Your task to perform on an android device: Show me productivity apps on the Play Store Image 0: 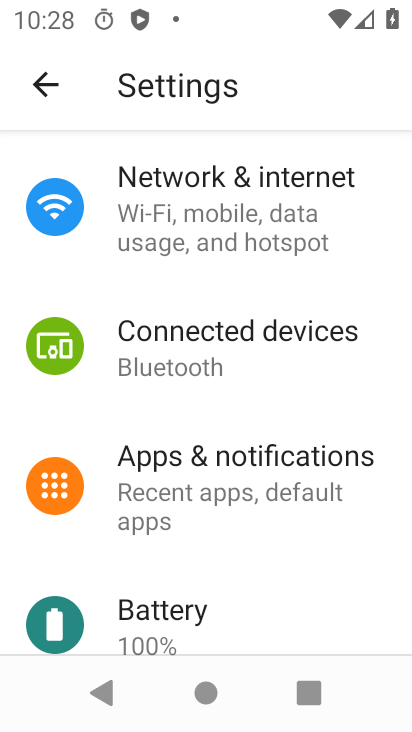
Step 0: press home button
Your task to perform on an android device: Show me productivity apps on the Play Store Image 1: 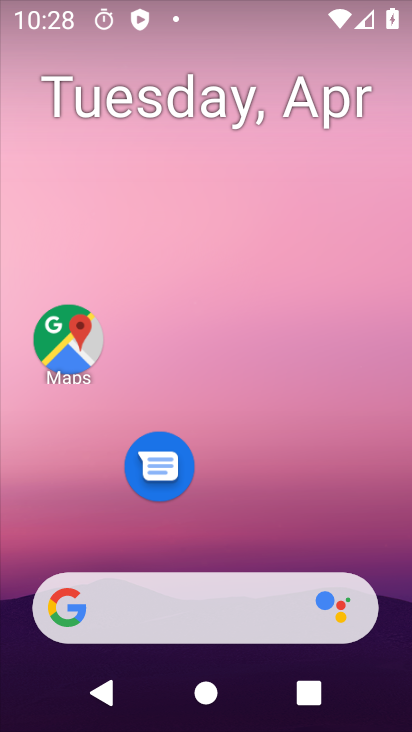
Step 1: drag from (264, 522) to (250, 133)
Your task to perform on an android device: Show me productivity apps on the Play Store Image 2: 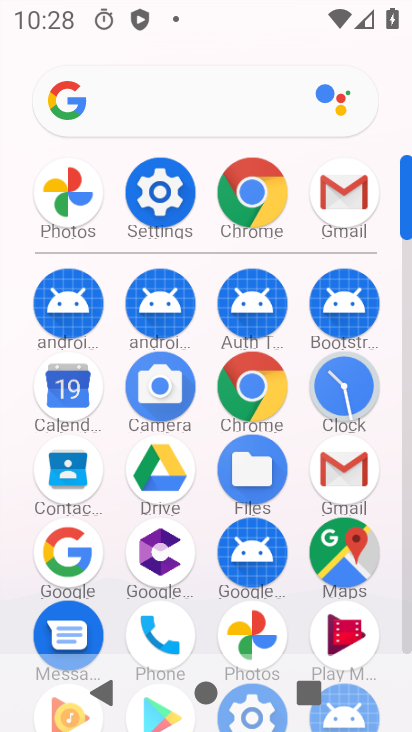
Step 2: click (409, 629)
Your task to perform on an android device: Show me productivity apps on the Play Store Image 3: 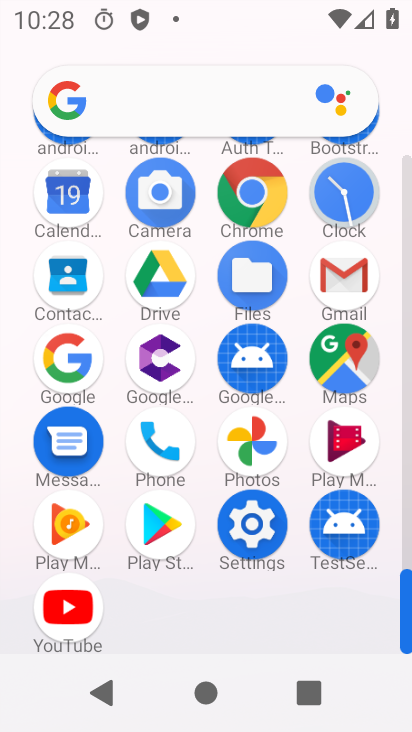
Step 3: click (175, 547)
Your task to perform on an android device: Show me productivity apps on the Play Store Image 4: 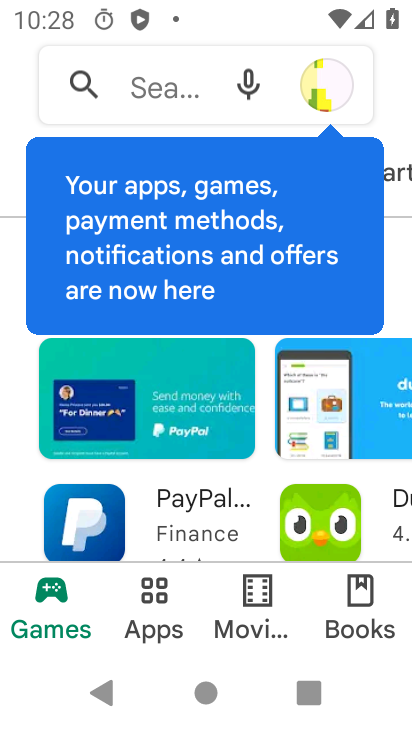
Step 4: click (139, 622)
Your task to perform on an android device: Show me productivity apps on the Play Store Image 5: 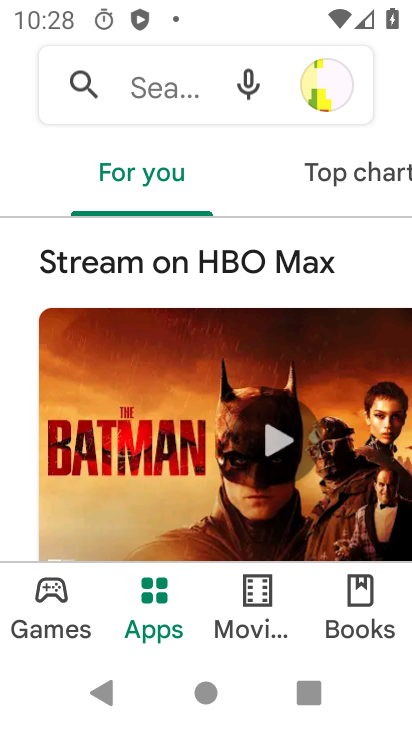
Step 5: click (335, 185)
Your task to perform on an android device: Show me productivity apps on the Play Store Image 6: 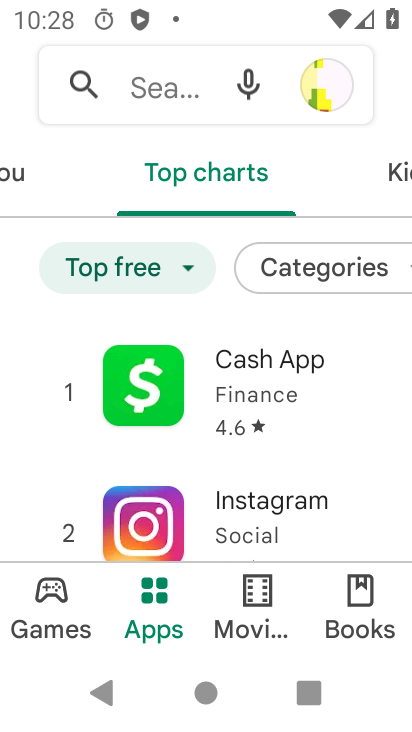
Step 6: click (307, 274)
Your task to perform on an android device: Show me productivity apps on the Play Store Image 7: 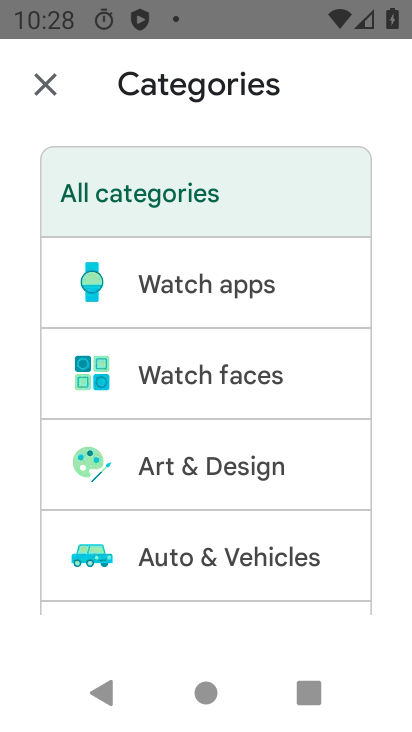
Step 7: drag from (234, 496) to (247, 255)
Your task to perform on an android device: Show me productivity apps on the Play Store Image 8: 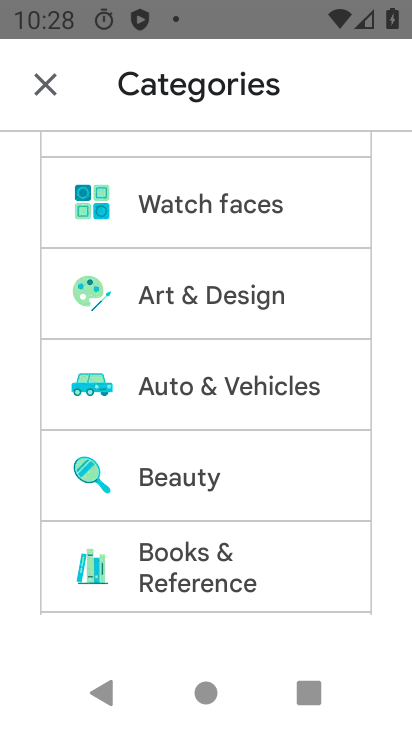
Step 8: drag from (230, 506) to (252, 300)
Your task to perform on an android device: Show me productivity apps on the Play Store Image 9: 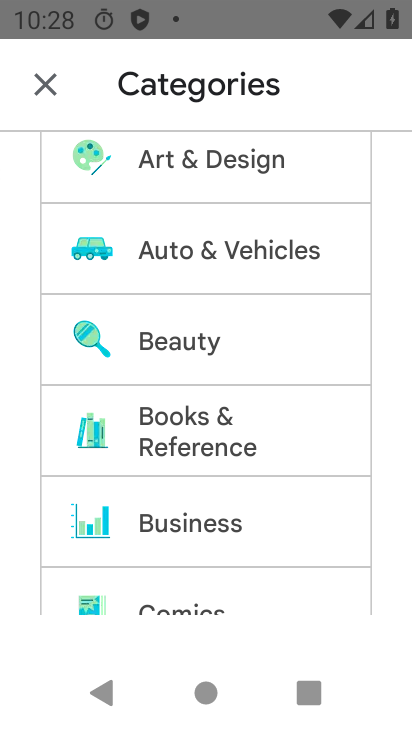
Step 9: drag from (233, 578) to (234, 251)
Your task to perform on an android device: Show me productivity apps on the Play Store Image 10: 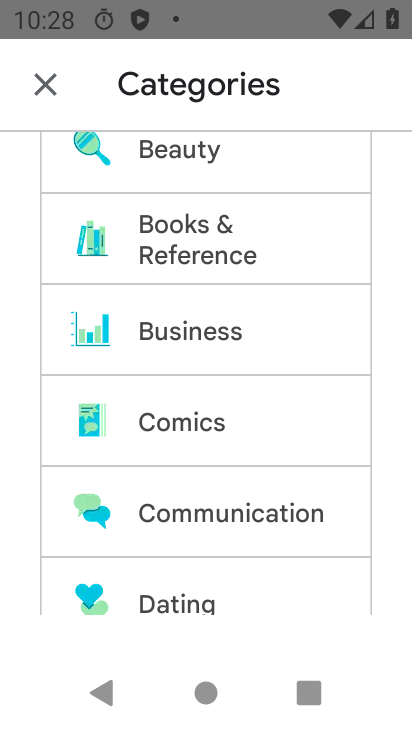
Step 10: drag from (229, 555) to (247, 144)
Your task to perform on an android device: Show me productivity apps on the Play Store Image 11: 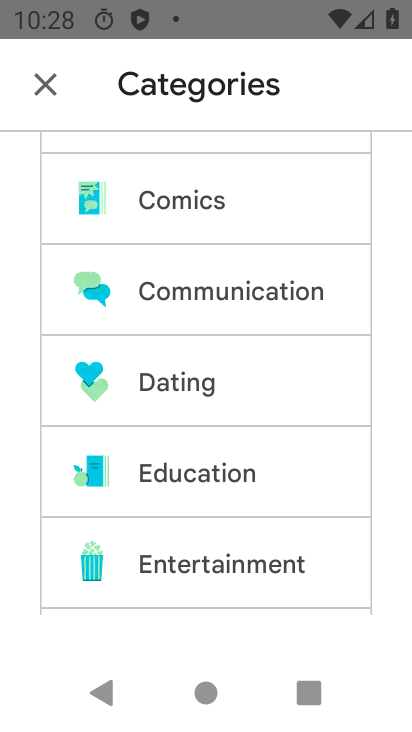
Step 11: drag from (233, 523) to (246, 304)
Your task to perform on an android device: Show me productivity apps on the Play Store Image 12: 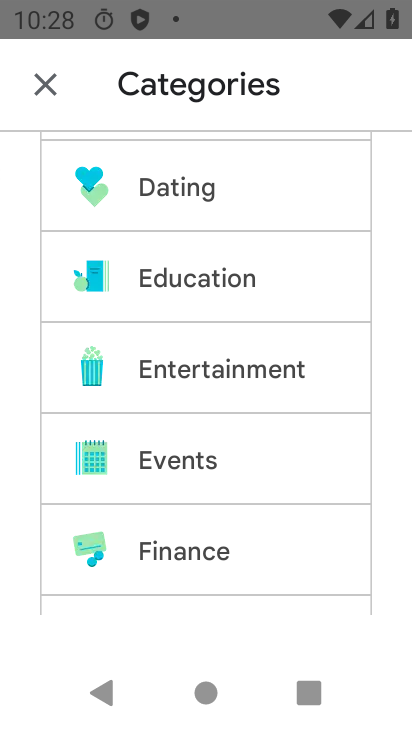
Step 12: drag from (230, 548) to (246, 249)
Your task to perform on an android device: Show me productivity apps on the Play Store Image 13: 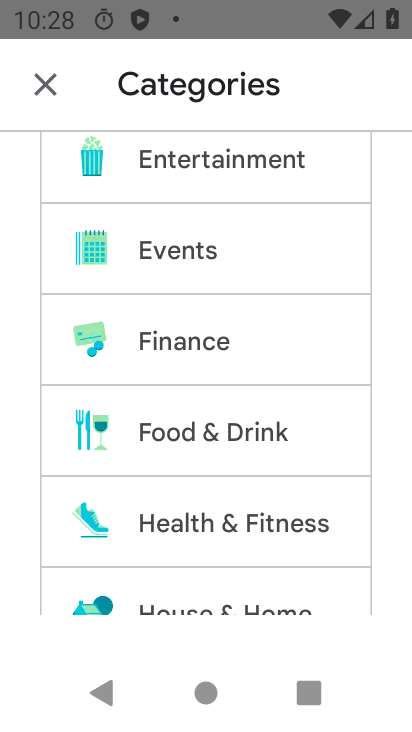
Step 13: drag from (234, 572) to (241, 270)
Your task to perform on an android device: Show me productivity apps on the Play Store Image 14: 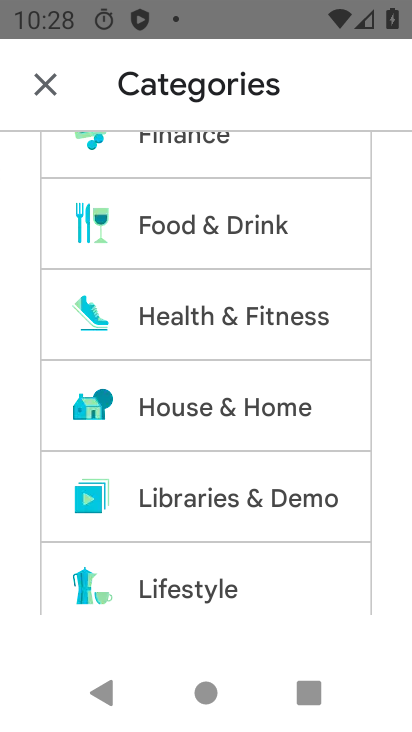
Step 14: drag from (241, 555) to (243, 209)
Your task to perform on an android device: Show me productivity apps on the Play Store Image 15: 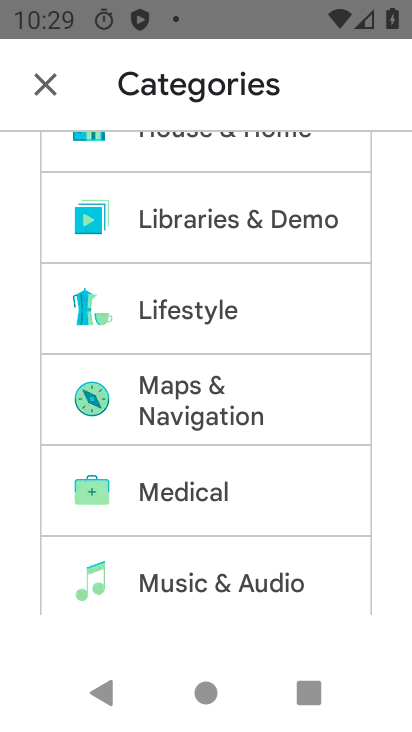
Step 15: drag from (219, 555) to (227, 192)
Your task to perform on an android device: Show me productivity apps on the Play Store Image 16: 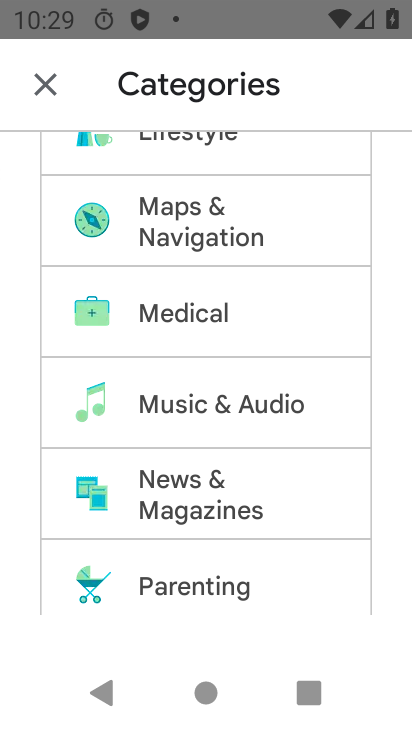
Step 16: drag from (235, 561) to (246, 282)
Your task to perform on an android device: Show me productivity apps on the Play Store Image 17: 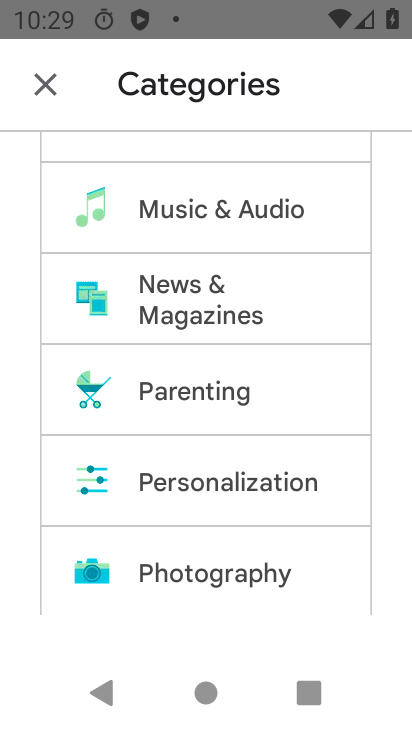
Step 17: drag from (236, 530) to (248, 291)
Your task to perform on an android device: Show me productivity apps on the Play Store Image 18: 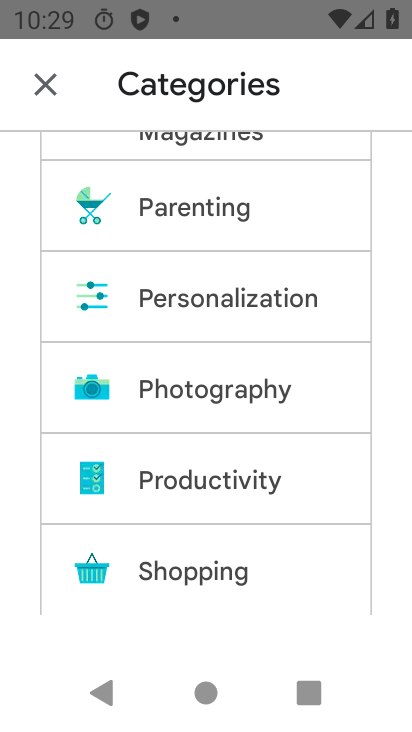
Step 18: click (229, 501)
Your task to perform on an android device: Show me productivity apps on the Play Store Image 19: 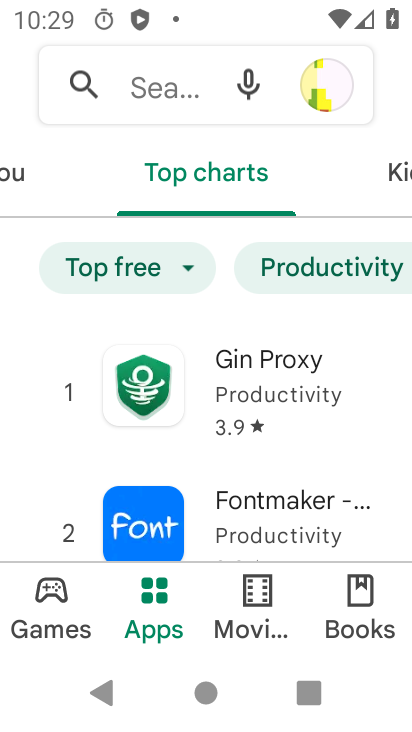
Step 19: task complete